Your task to perform on an android device: Check the news Image 0: 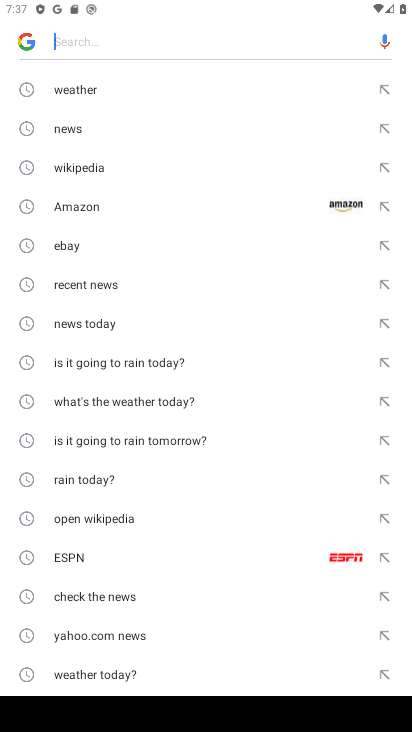
Step 0: click (78, 320)
Your task to perform on an android device: Check the news Image 1: 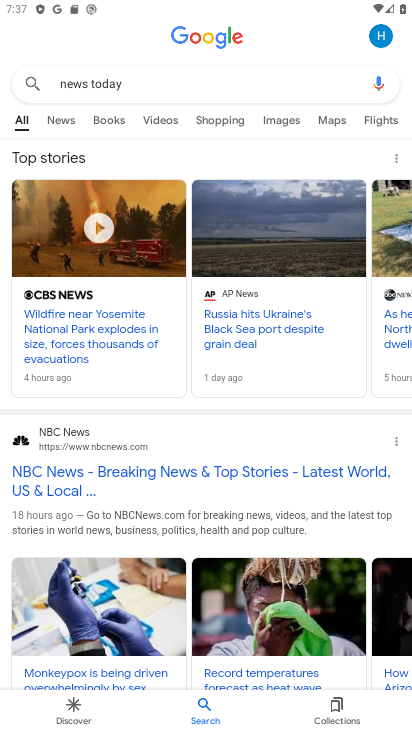
Step 1: task complete